Your task to perform on an android device: Open privacy settings Image 0: 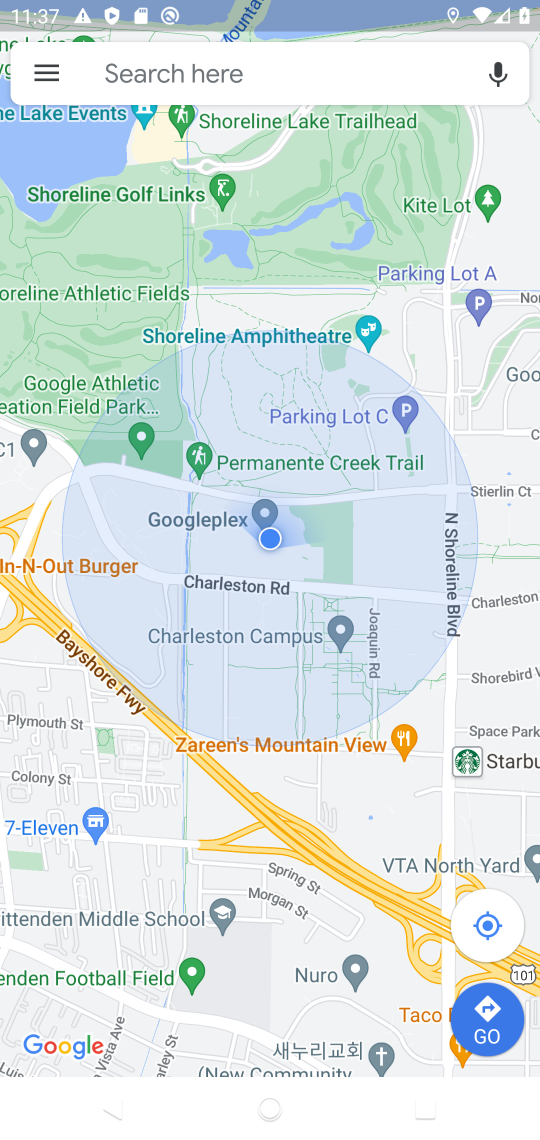
Step 0: press home button
Your task to perform on an android device: Open privacy settings Image 1: 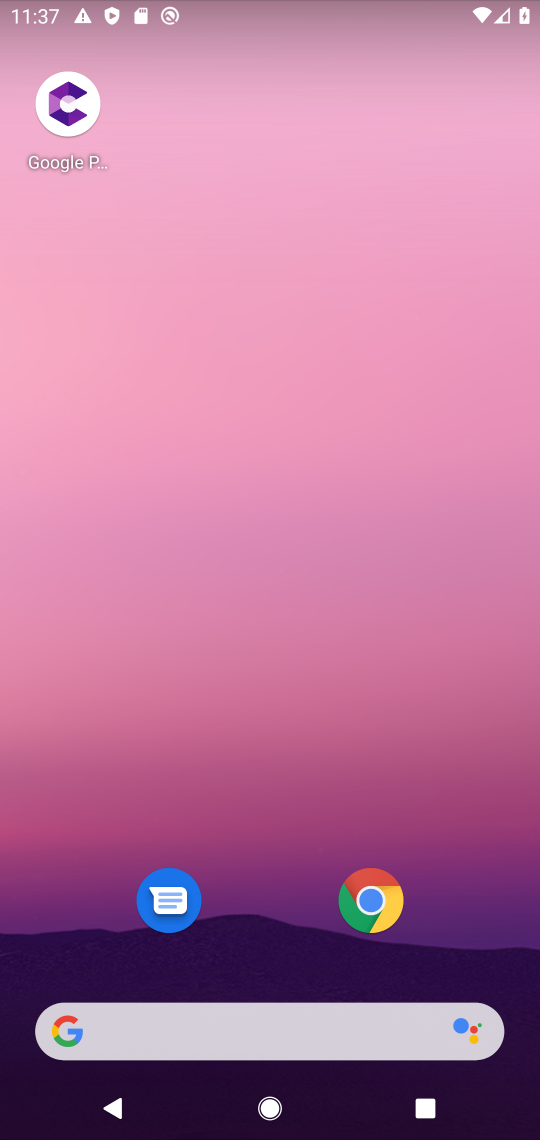
Step 1: drag from (280, 863) to (262, 61)
Your task to perform on an android device: Open privacy settings Image 2: 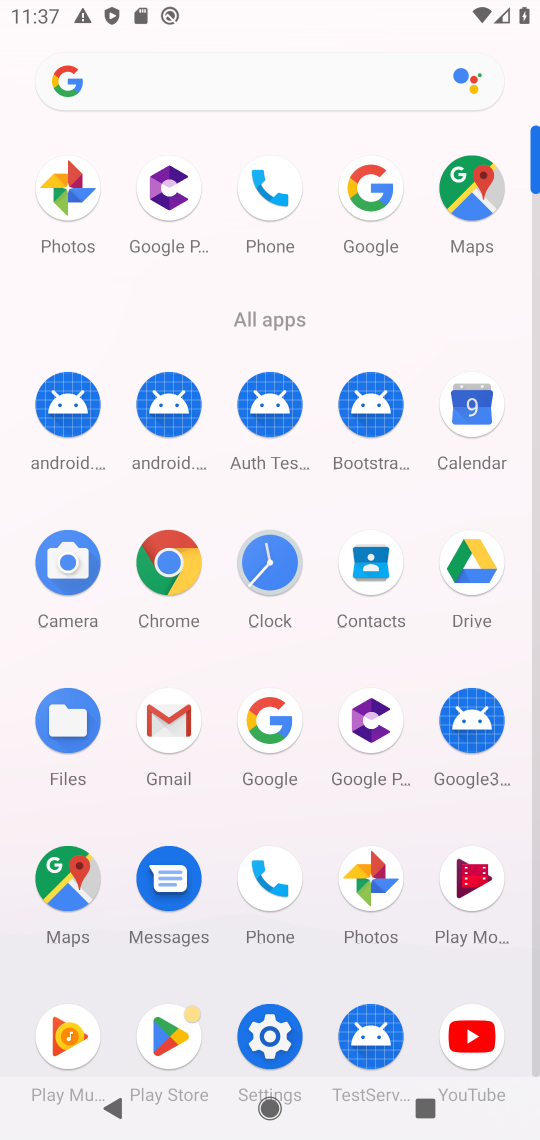
Step 2: click (274, 1030)
Your task to perform on an android device: Open privacy settings Image 3: 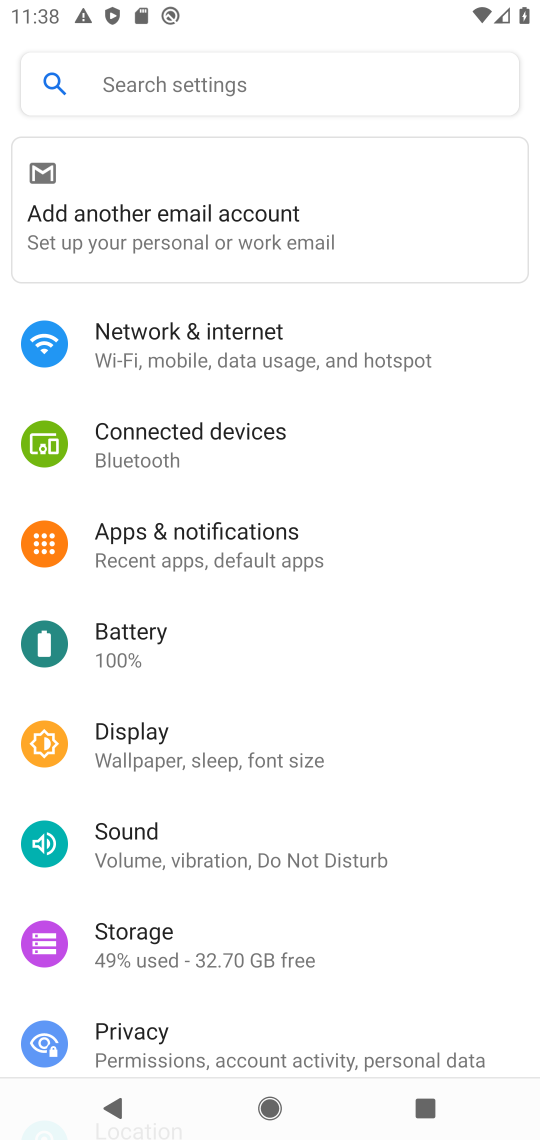
Step 3: click (256, 1038)
Your task to perform on an android device: Open privacy settings Image 4: 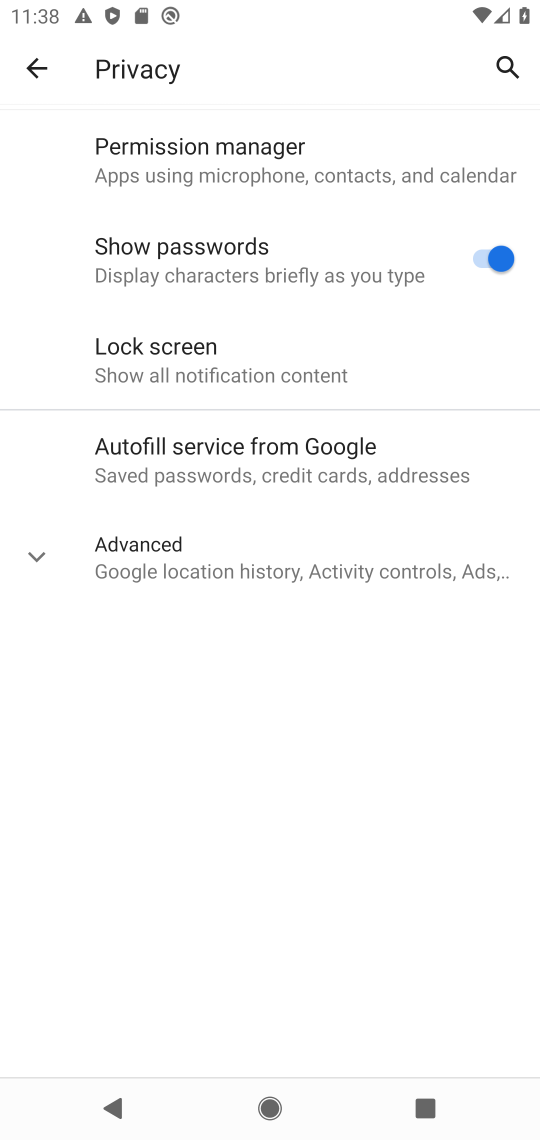
Step 4: task complete